Your task to perform on an android device: Open display settings Image 0: 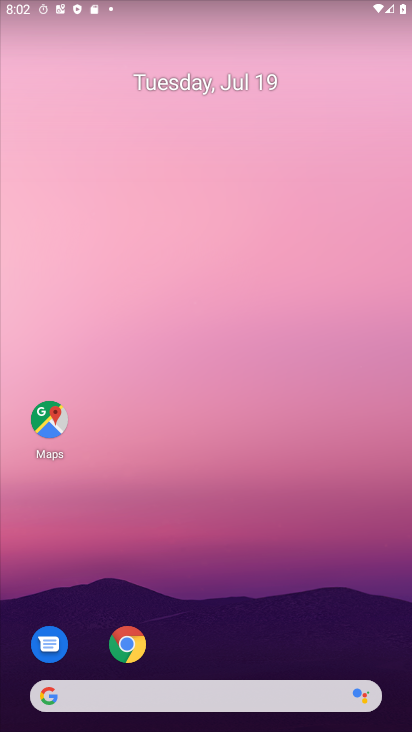
Step 0: drag from (8, 705) to (307, 36)
Your task to perform on an android device: Open display settings Image 1: 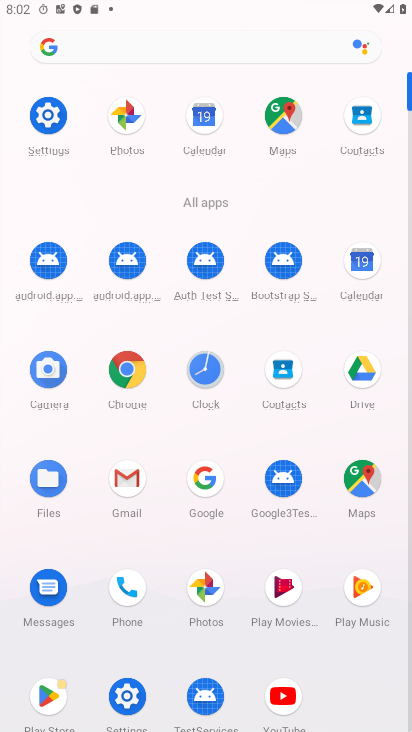
Step 1: click (130, 699)
Your task to perform on an android device: Open display settings Image 2: 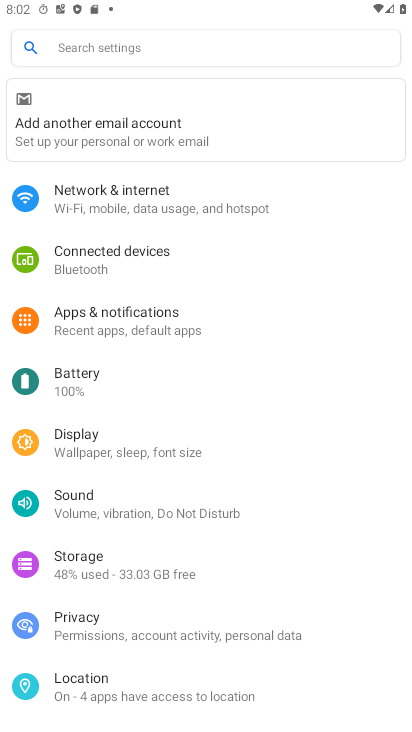
Step 2: click (108, 445)
Your task to perform on an android device: Open display settings Image 3: 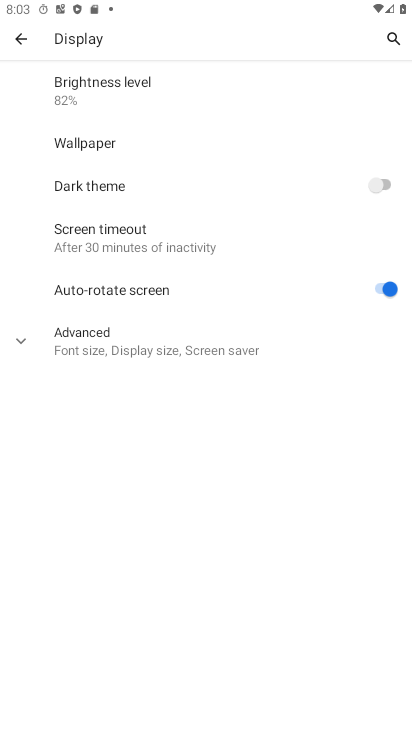
Step 3: task complete